Your task to perform on an android device: change text size in settings app Image 0: 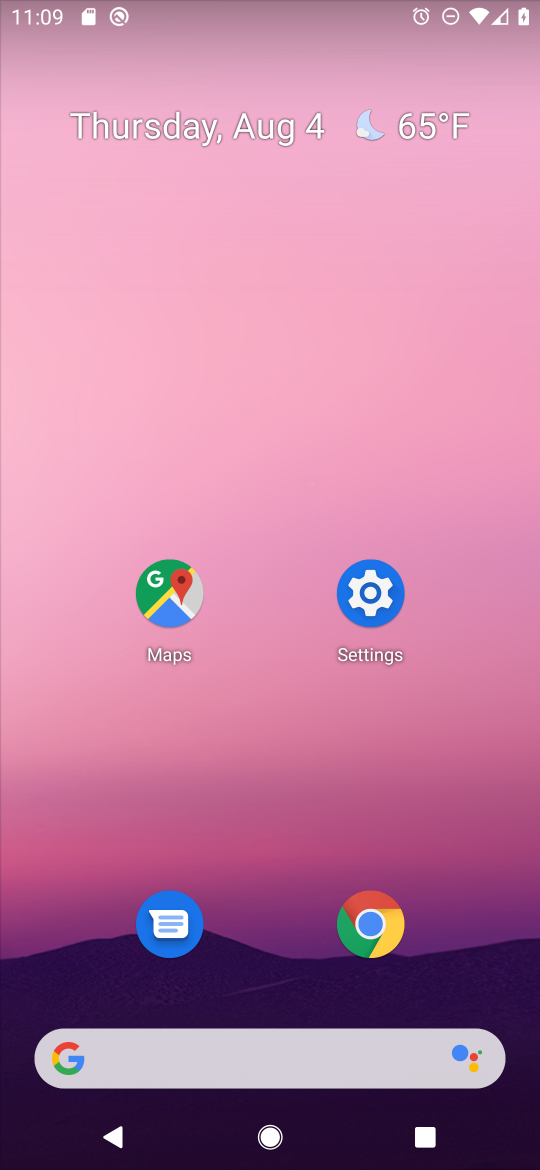
Step 0: press home button
Your task to perform on an android device: change text size in settings app Image 1: 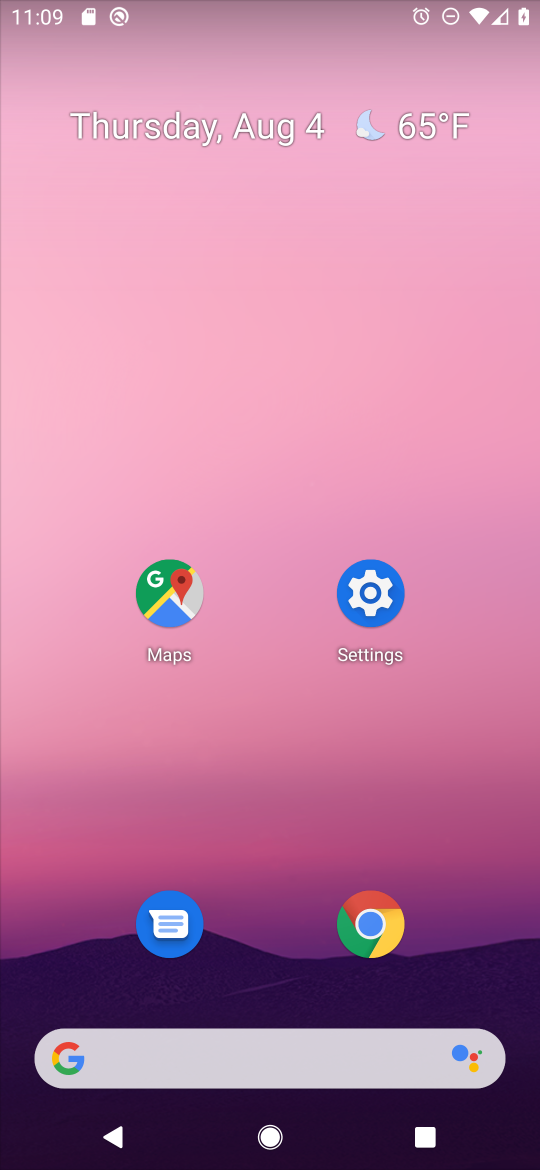
Step 1: click (376, 597)
Your task to perform on an android device: change text size in settings app Image 2: 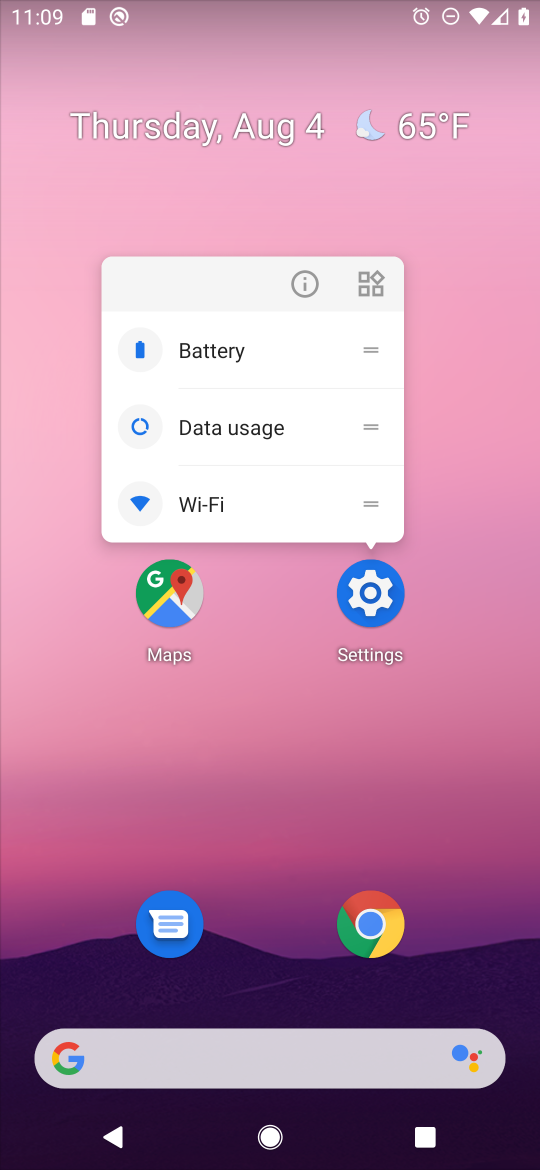
Step 2: click (376, 598)
Your task to perform on an android device: change text size in settings app Image 3: 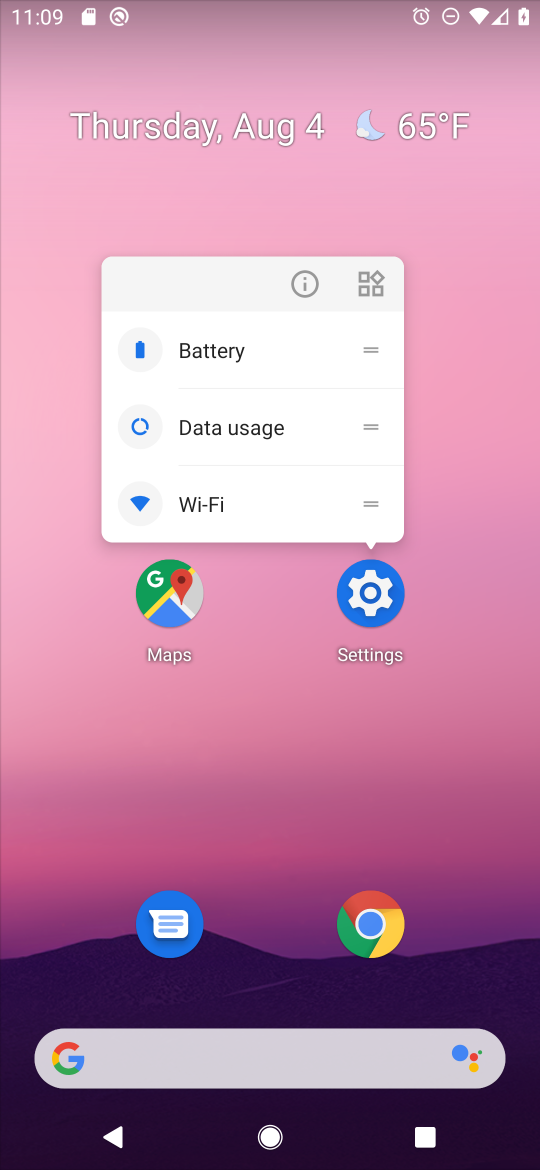
Step 3: click (376, 599)
Your task to perform on an android device: change text size in settings app Image 4: 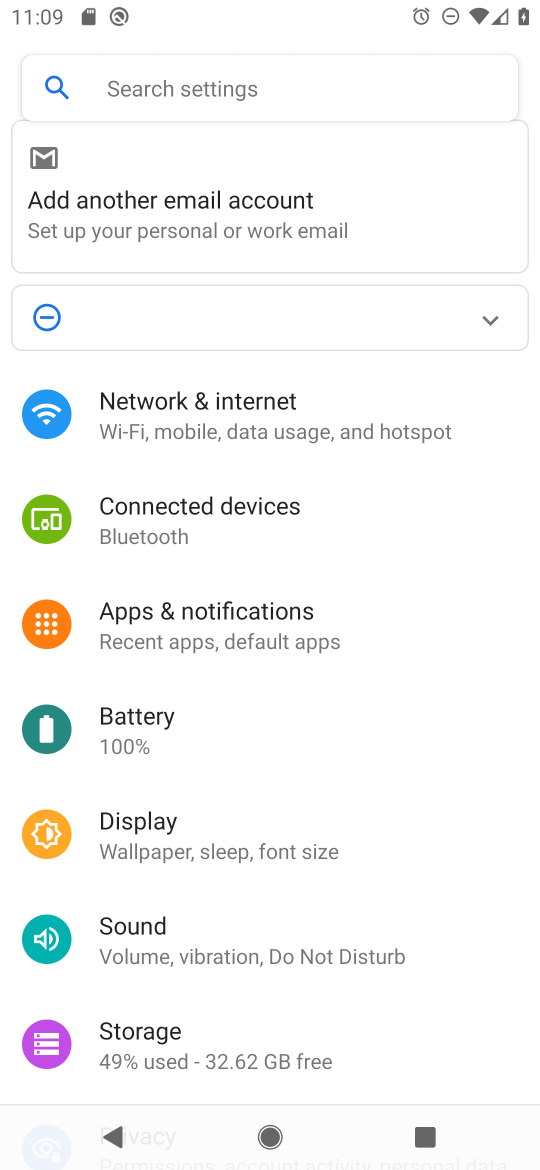
Step 4: click (198, 847)
Your task to perform on an android device: change text size in settings app Image 5: 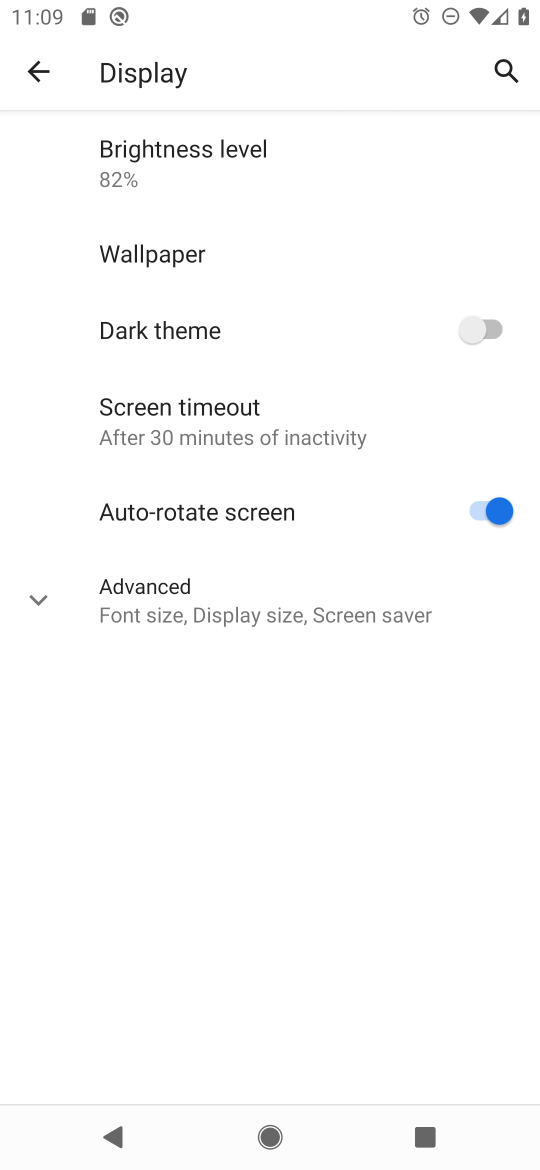
Step 5: click (241, 613)
Your task to perform on an android device: change text size in settings app Image 6: 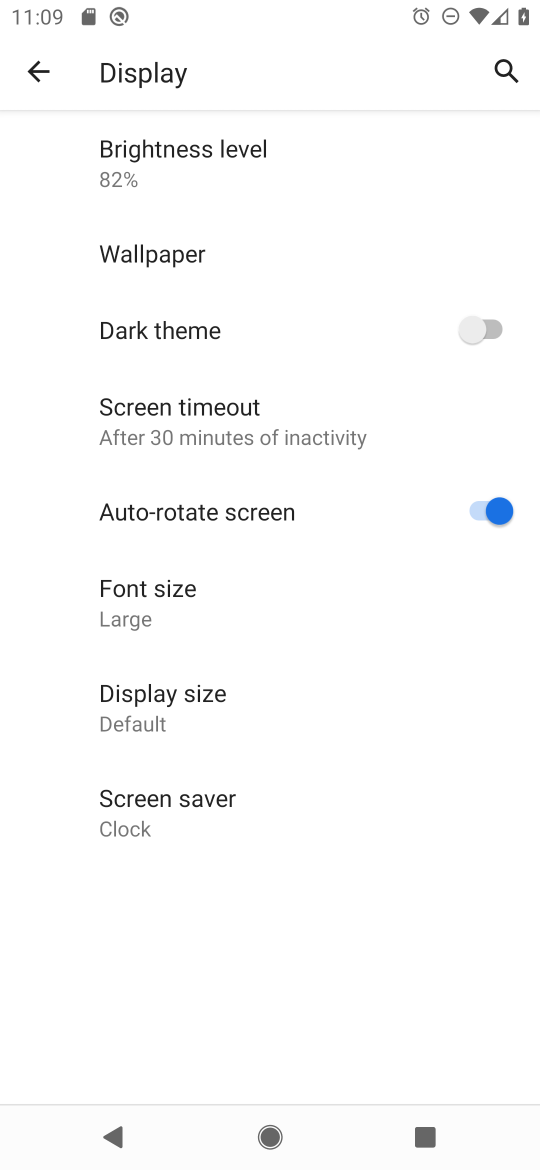
Step 6: click (149, 589)
Your task to perform on an android device: change text size in settings app Image 7: 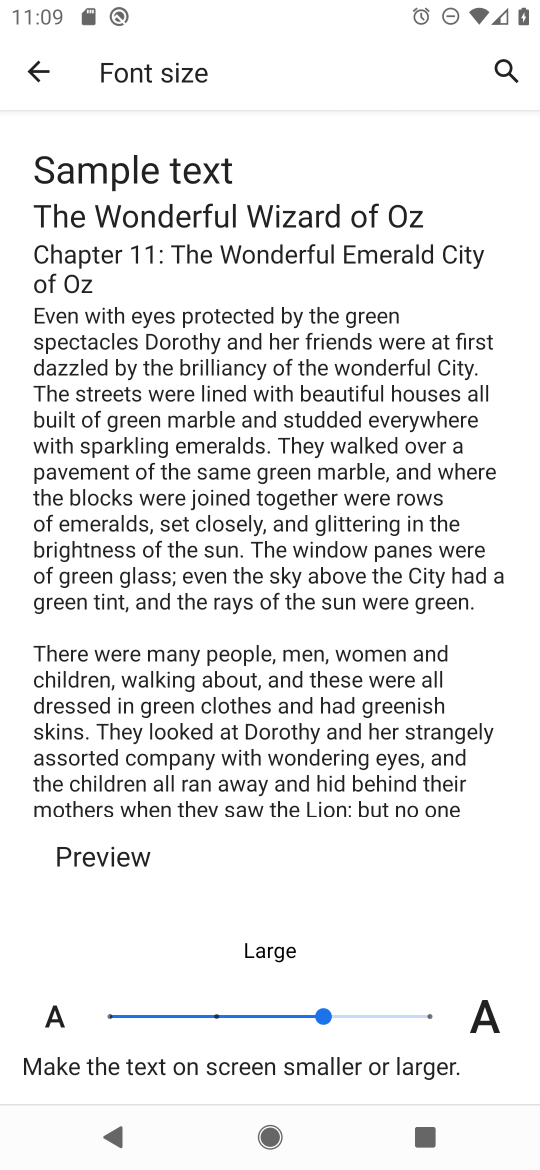
Step 7: click (219, 1013)
Your task to perform on an android device: change text size in settings app Image 8: 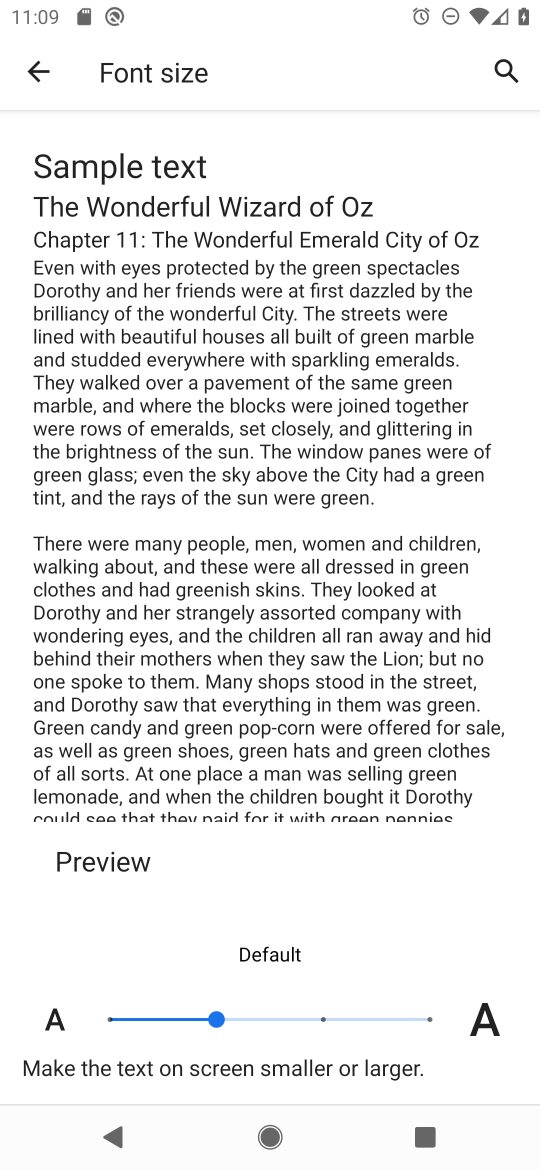
Step 8: task complete